Your task to perform on an android device: Go to CNN.com Image 0: 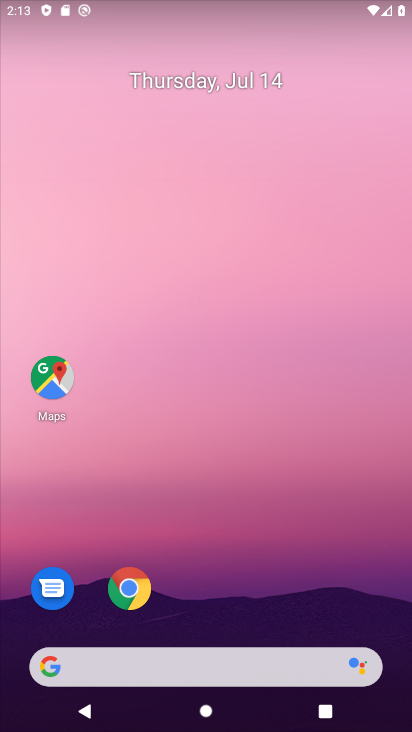
Step 0: drag from (306, 566) to (384, 65)
Your task to perform on an android device: Go to CNN.com Image 1: 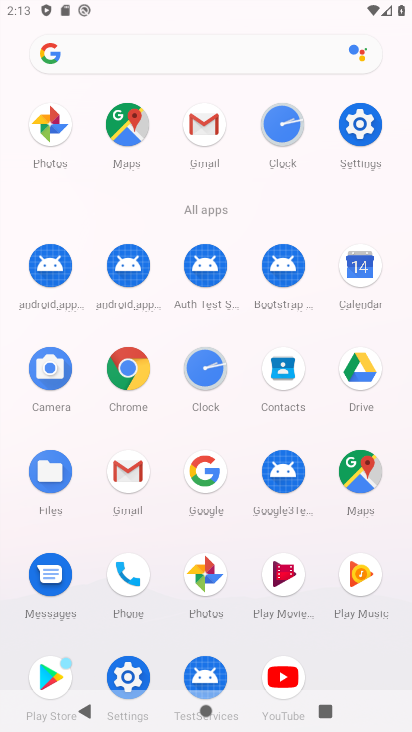
Step 1: click (134, 356)
Your task to perform on an android device: Go to CNN.com Image 2: 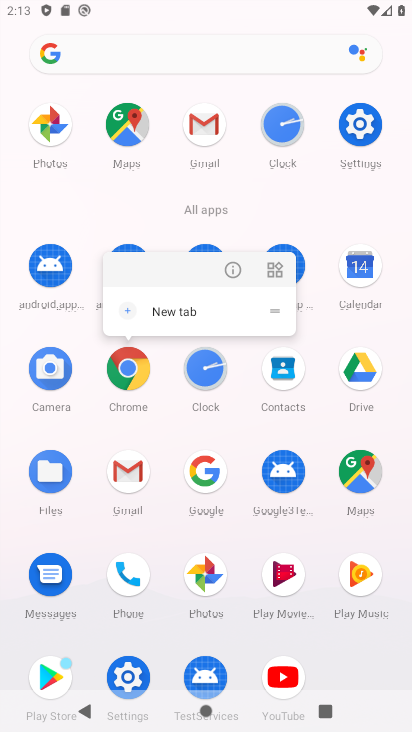
Step 2: click (134, 356)
Your task to perform on an android device: Go to CNN.com Image 3: 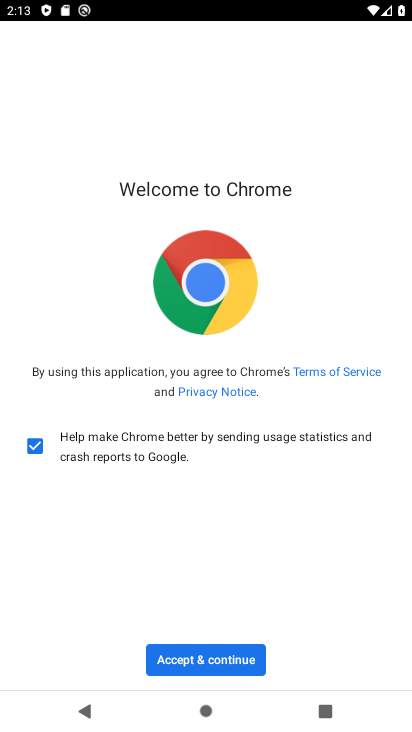
Step 3: click (235, 660)
Your task to perform on an android device: Go to CNN.com Image 4: 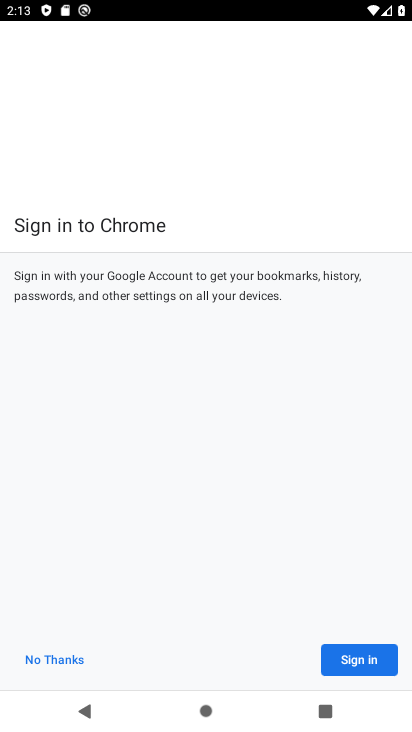
Step 4: click (33, 655)
Your task to perform on an android device: Go to CNN.com Image 5: 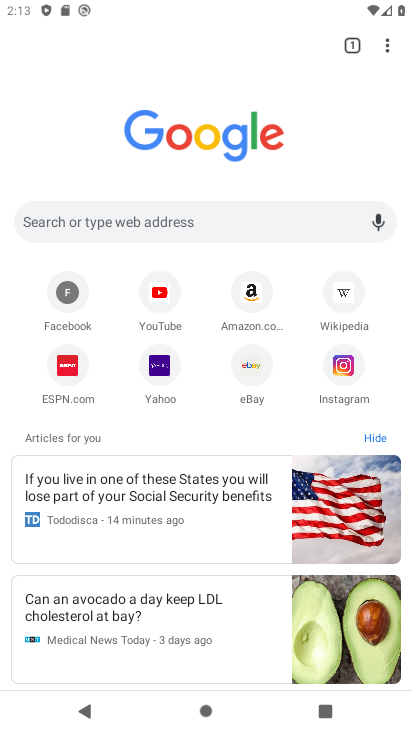
Step 5: click (166, 221)
Your task to perform on an android device: Go to CNN.com Image 6: 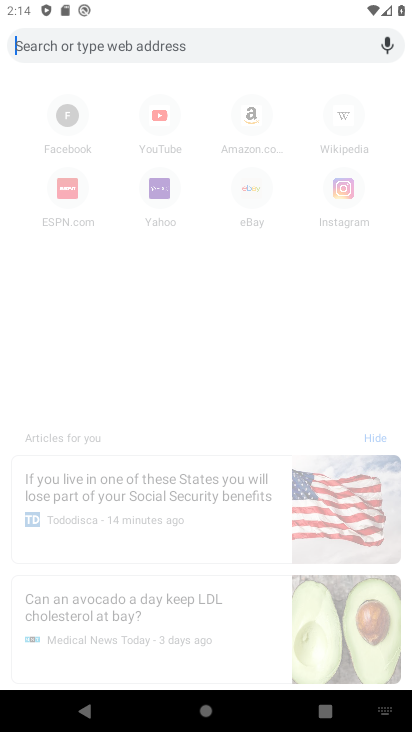
Step 6: type "CNN.com"
Your task to perform on an android device: Go to CNN.com Image 7: 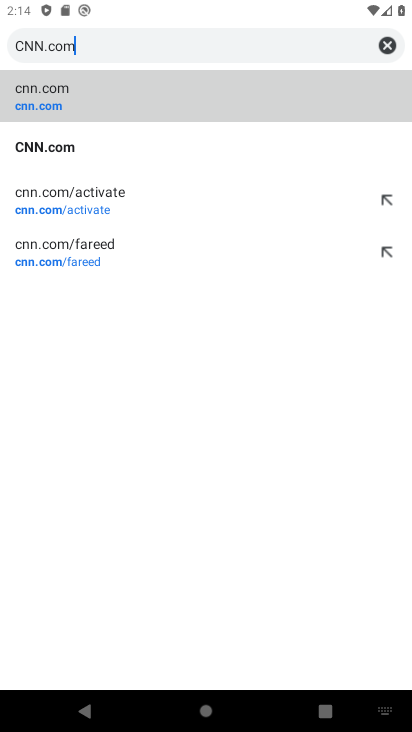
Step 7: click (91, 145)
Your task to perform on an android device: Go to CNN.com Image 8: 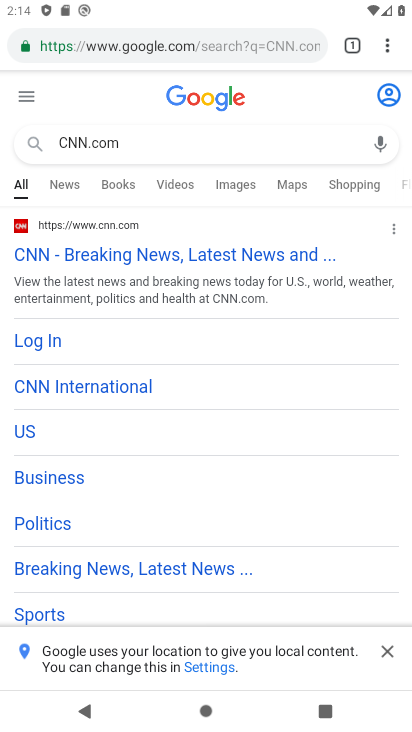
Step 8: task complete